Your task to perform on an android device: Show the shopping cart on ebay.com. Add "macbook pro 15 inch" to the cart on ebay.com, then select checkout. Image 0: 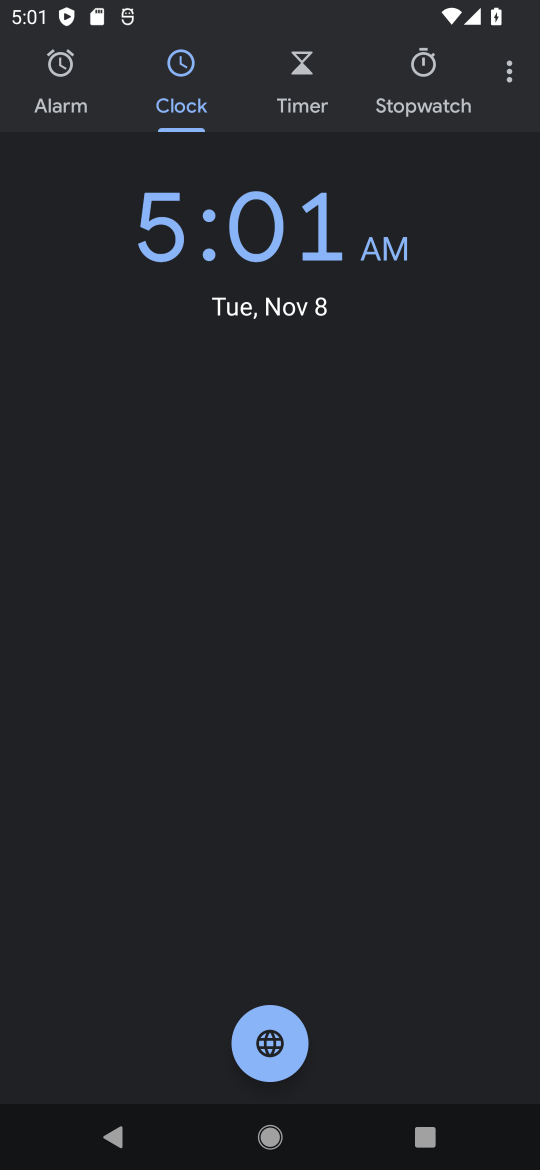
Step 0: press home button
Your task to perform on an android device: Show the shopping cart on ebay.com. Add "macbook pro 15 inch" to the cart on ebay.com, then select checkout. Image 1: 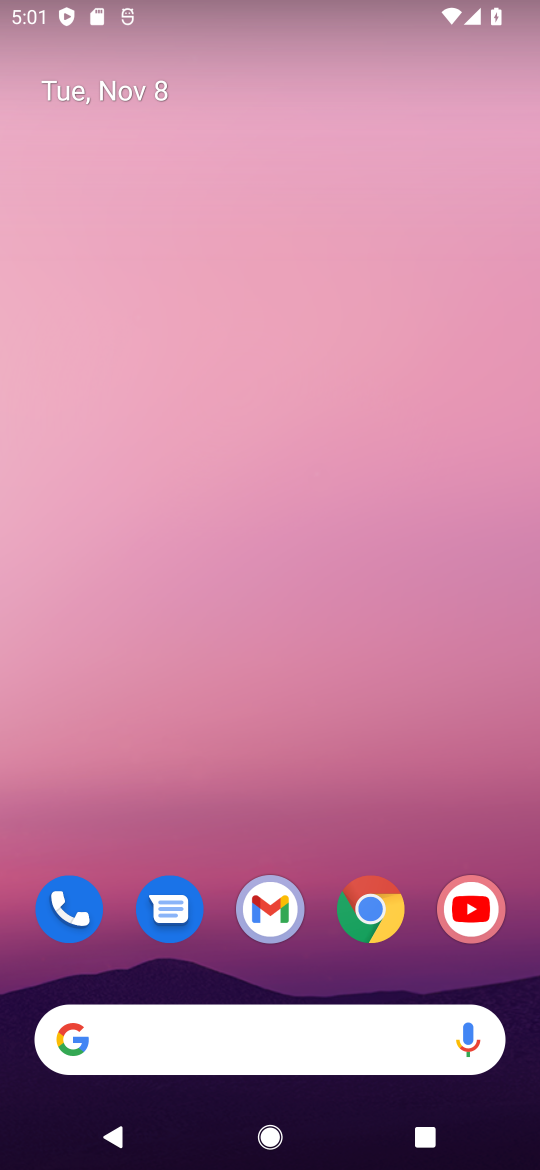
Step 1: click (382, 902)
Your task to perform on an android device: Show the shopping cart on ebay.com. Add "macbook pro 15 inch" to the cart on ebay.com, then select checkout. Image 2: 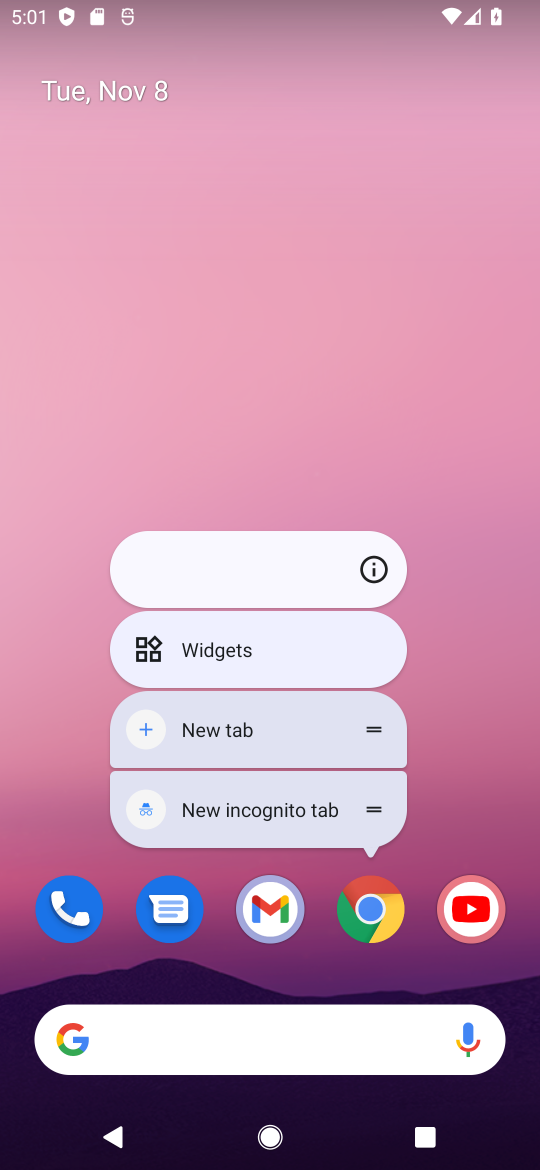
Step 2: click (366, 912)
Your task to perform on an android device: Show the shopping cart on ebay.com. Add "macbook pro 15 inch" to the cart on ebay.com, then select checkout. Image 3: 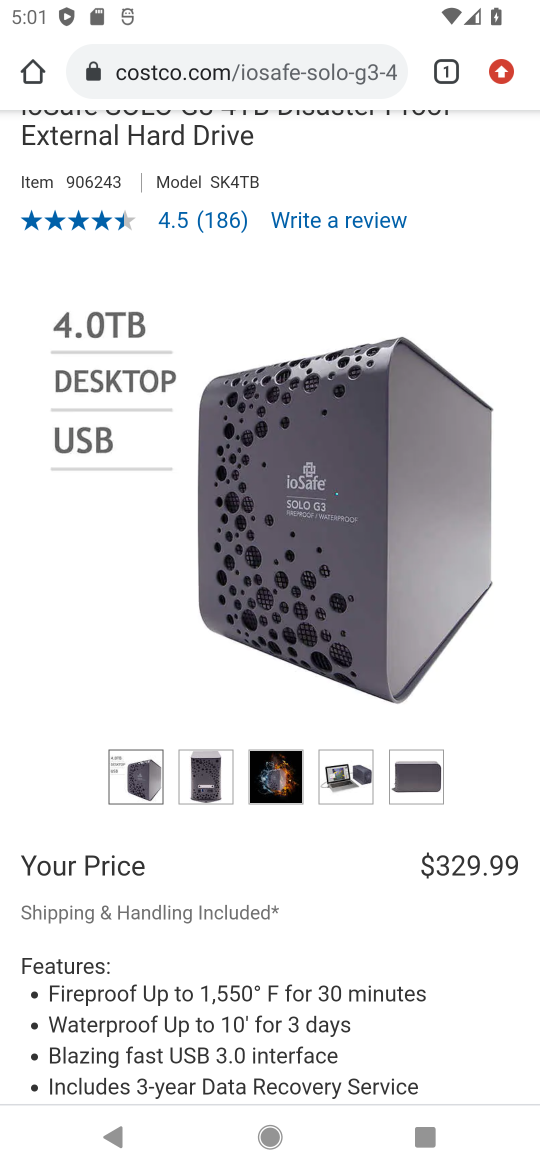
Step 3: click (294, 58)
Your task to perform on an android device: Show the shopping cart on ebay.com. Add "macbook pro 15 inch" to the cart on ebay.com, then select checkout. Image 4: 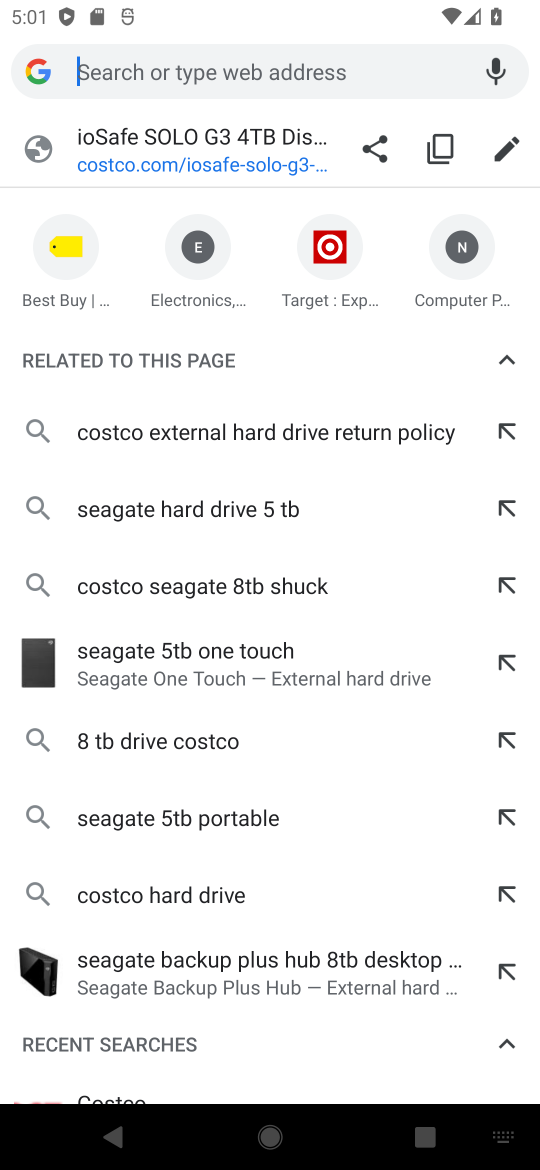
Step 4: click (212, 285)
Your task to perform on an android device: Show the shopping cart on ebay.com. Add "macbook pro 15 inch" to the cart on ebay.com, then select checkout. Image 5: 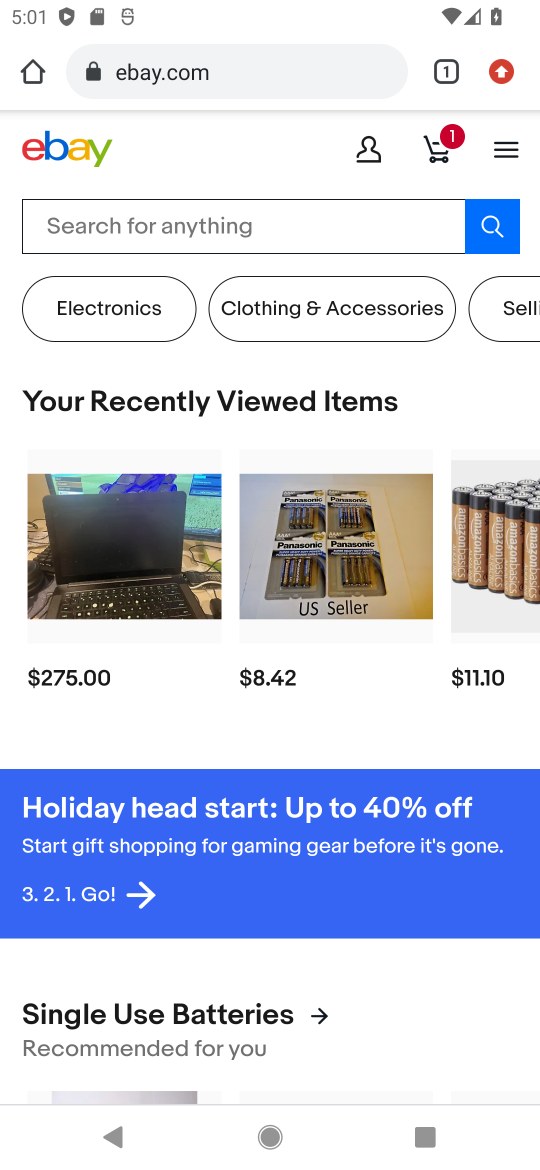
Step 5: click (236, 221)
Your task to perform on an android device: Show the shopping cart on ebay.com. Add "macbook pro 15 inch" to the cart on ebay.com, then select checkout. Image 6: 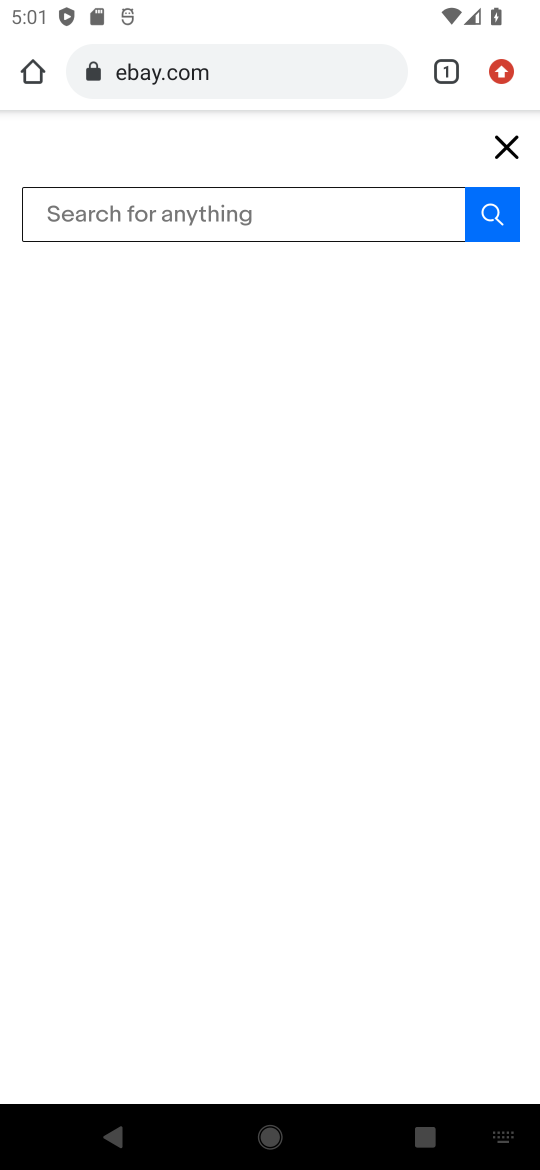
Step 6: type "macbook pro 15 inch"
Your task to perform on an android device: Show the shopping cart on ebay.com. Add "macbook pro 15 inch" to the cart on ebay.com, then select checkout. Image 7: 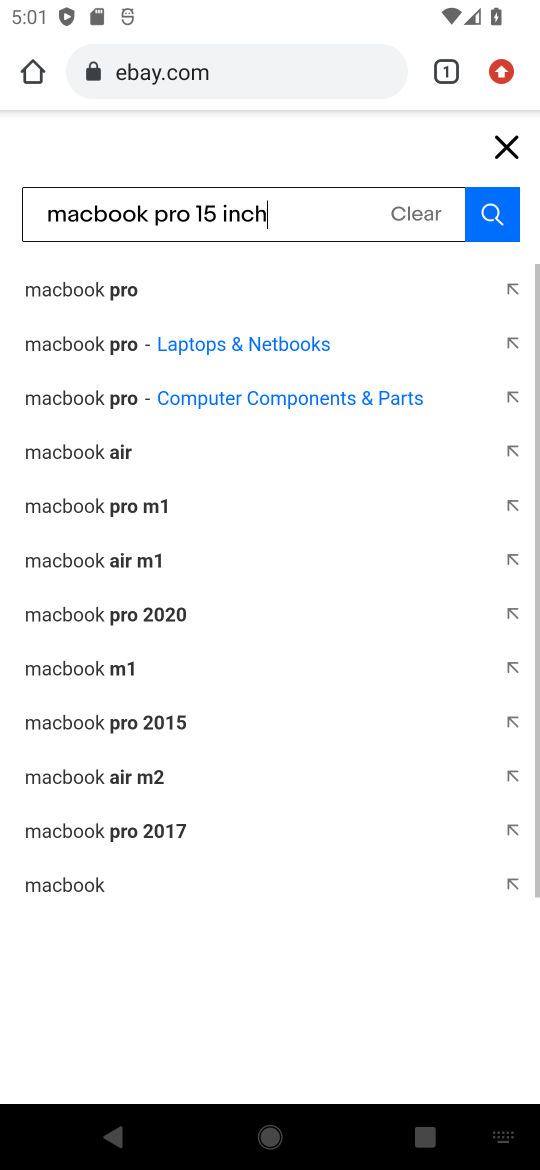
Step 7: press enter
Your task to perform on an android device: Show the shopping cart on ebay.com. Add "macbook pro 15 inch" to the cart on ebay.com, then select checkout. Image 8: 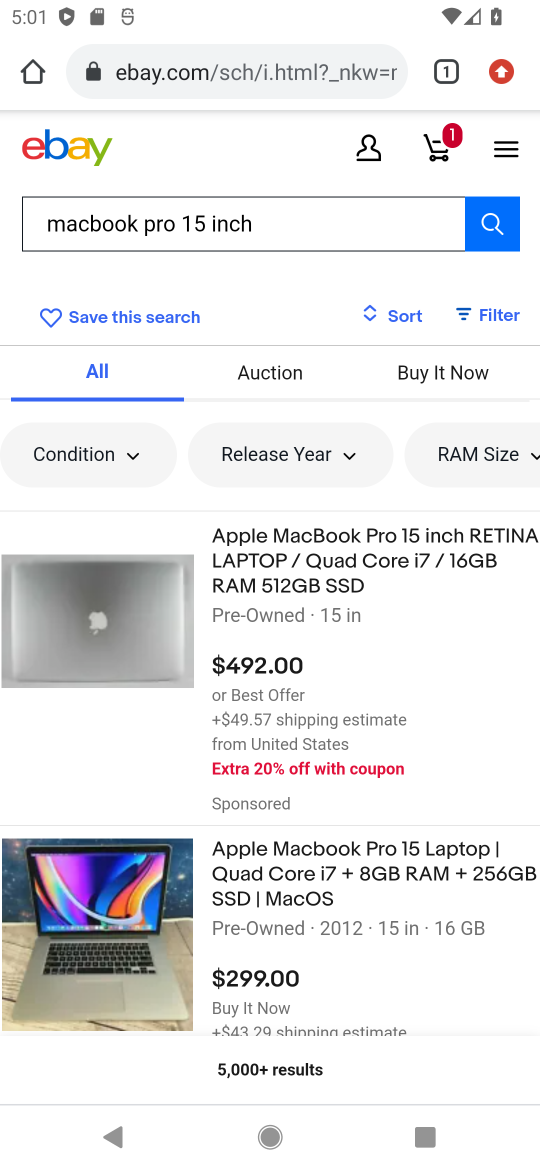
Step 8: click (389, 586)
Your task to perform on an android device: Show the shopping cart on ebay.com. Add "macbook pro 15 inch" to the cart on ebay.com, then select checkout. Image 9: 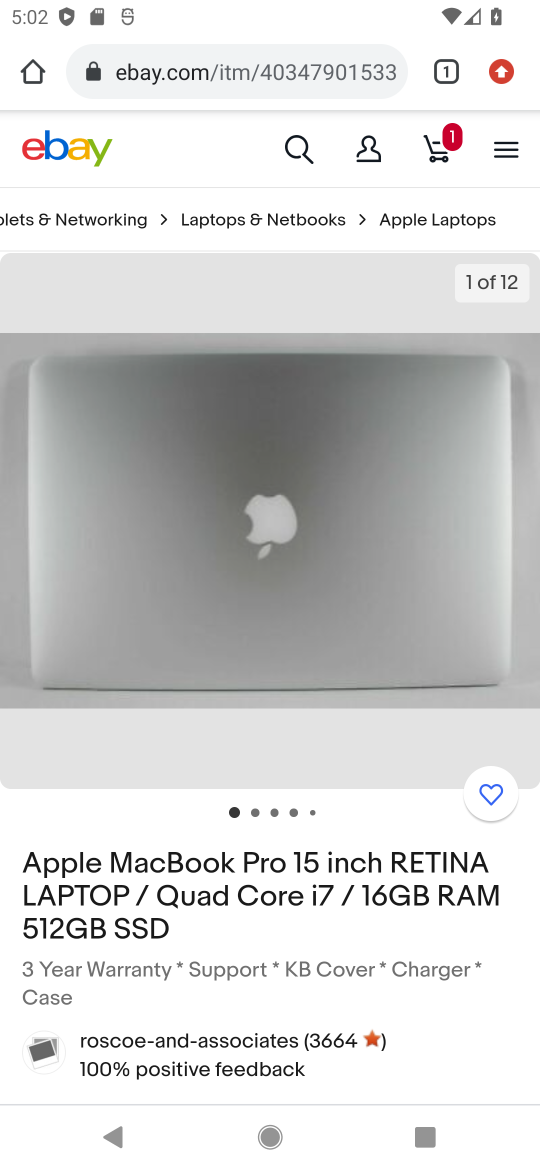
Step 9: drag from (266, 976) to (452, 418)
Your task to perform on an android device: Show the shopping cart on ebay.com. Add "macbook pro 15 inch" to the cart on ebay.com, then select checkout. Image 10: 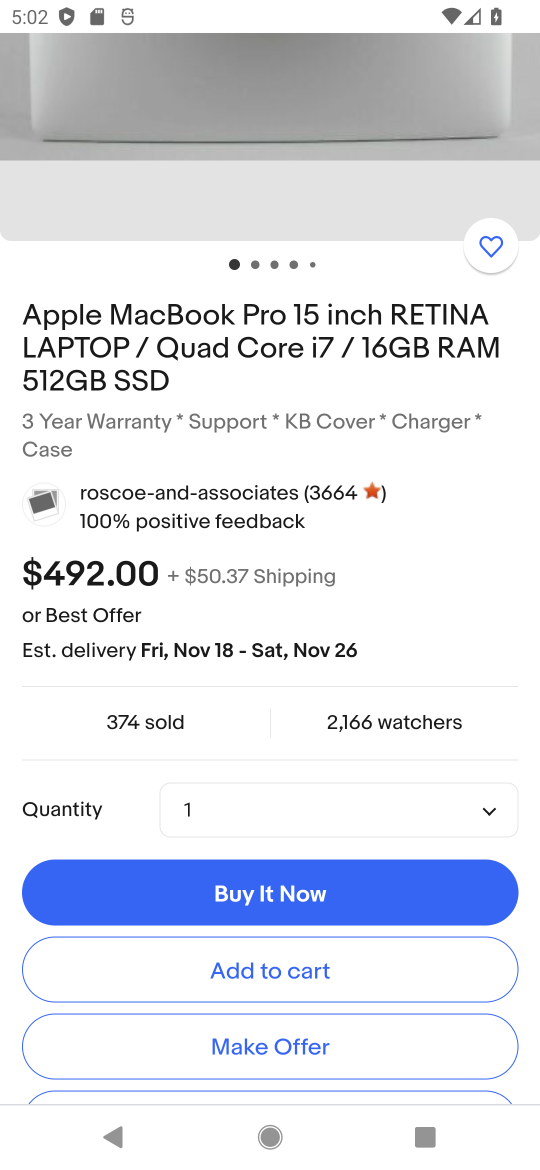
Step 10: click (291, 963)
Your task to perform on an android device: Show the shopping cart on ebay.com. Add "macbook pro 15 inch" to the cart on ebay.com, then select checkout. Image 11: 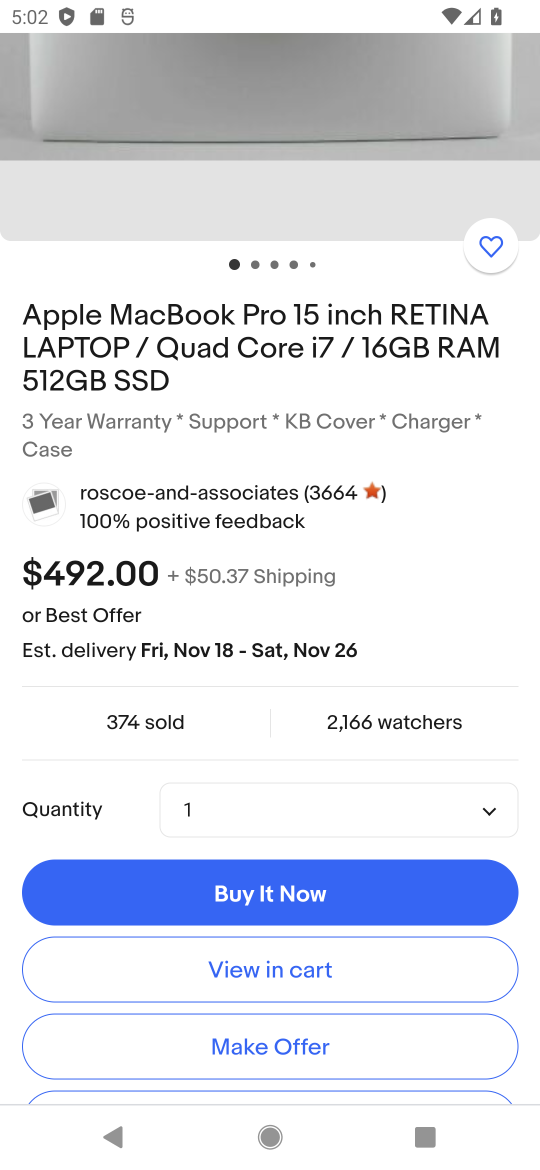
Step 11: click (278, 966)
Your task to perform on an android device: Show the shopping cart on ebay.com. Add "macbook pro 15 inch" to the cart on ebay.com, then select checkout. Image 12: 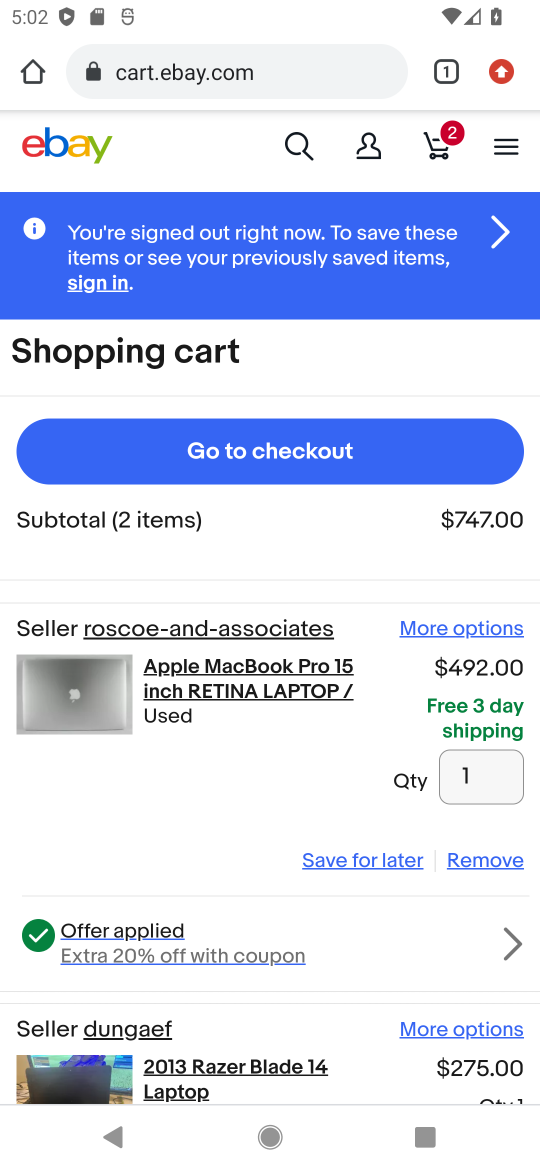
Step 12: drag from (229, 875) to (423, 427)
Your task to perform on an android device: Show the shopping cart on ebay.com. Add "macbook pro 15 inch" to the cart on ebay.com, then select checkout. Image 13: 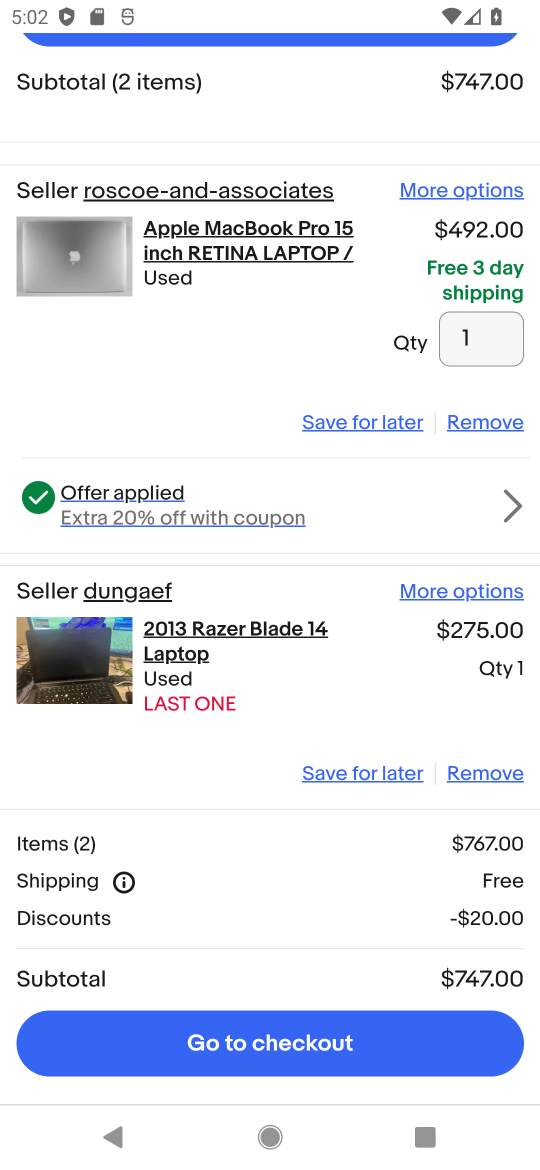
Step 13: click (464, 772)
Your task to perform on an android device: Show the shopping cart on ebay.com. Add "macbook pro 15 inch" to the cart on ebay.com, then select checkout. Image 14: 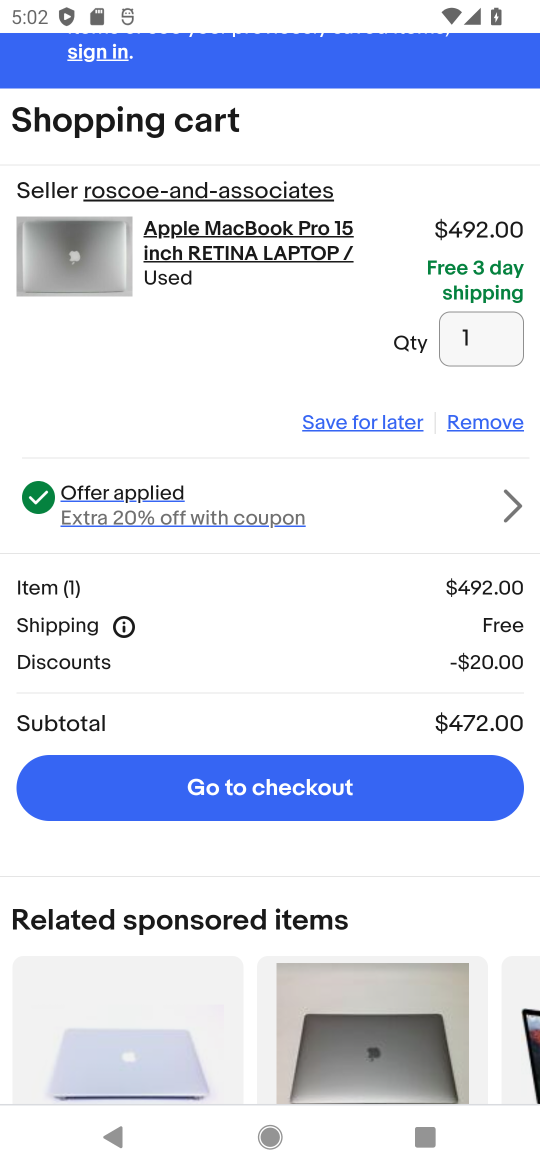
Step 14: click (271, 790)
Your task to perform on an android device: Show the shopping cart on ebay.com. Add "macbook pro 15 inch" to the cart on ebay.com, then select checkout. Image 15: 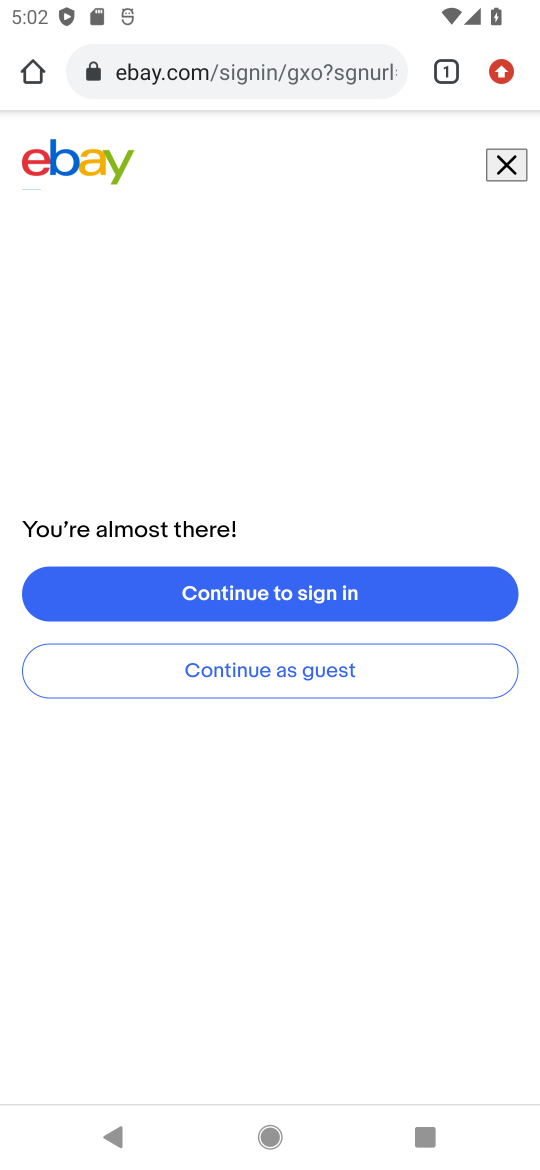
Step 15: task complete